Your task to perform on an android device: change the clock display to show seconds Image 0: 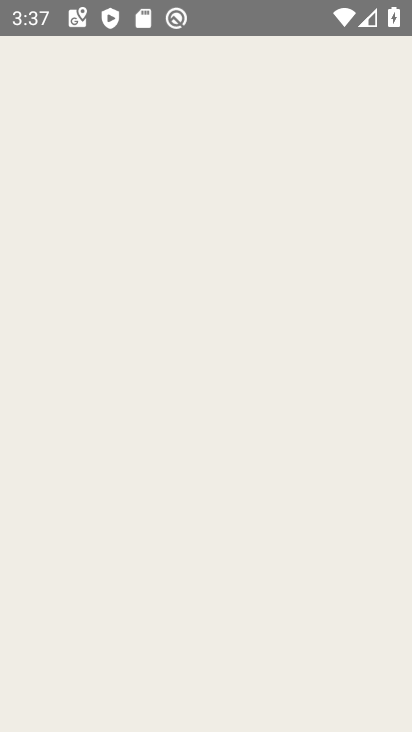
Step 0: press home button
Your task to perform on an android device: change the clock display to show seconds Image 1: 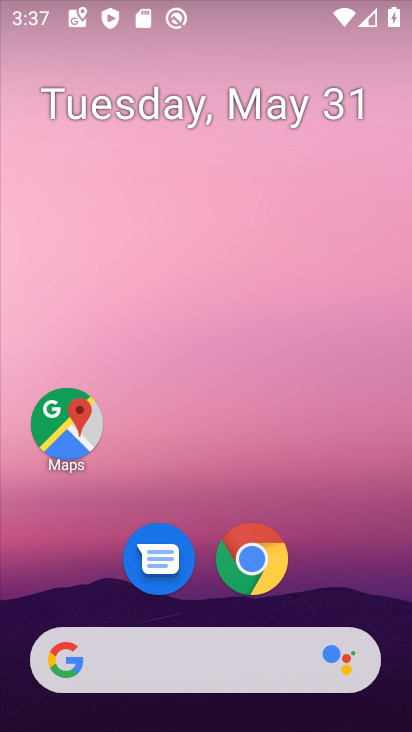
Step 1: drag from (238, 679) to (238, 552)
Your task to perform on an android device: change the clock display to show seconds Image 2: 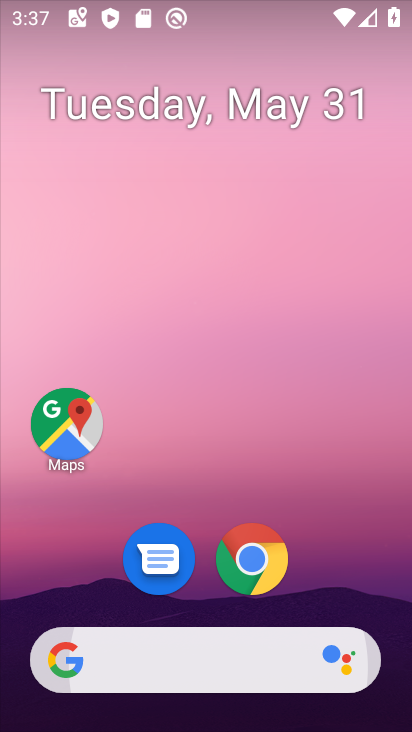
Step 2: click (232, 126)
Your task to perform on an android device: change the clock display to show seconds Image 3: 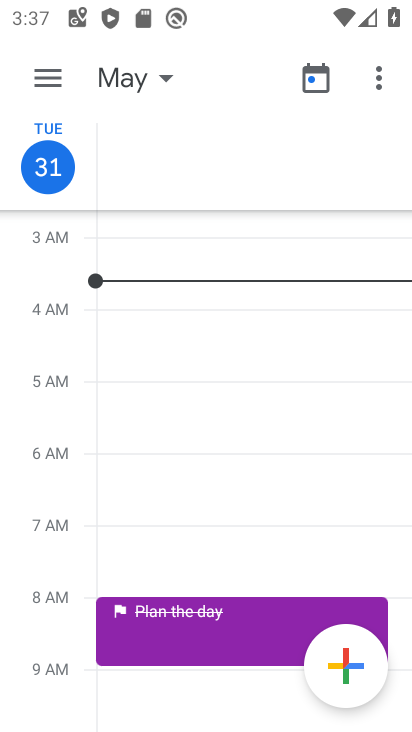
Step 3: press home button
Your task to perform on an android device: change the clock display to show seconds Image 4: 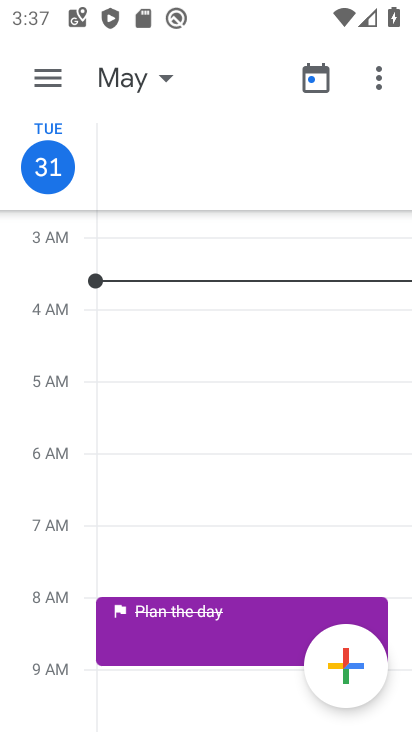
Step 4: press home button
Your task to perform on an android device: change the clock display to show seconds Image 5: 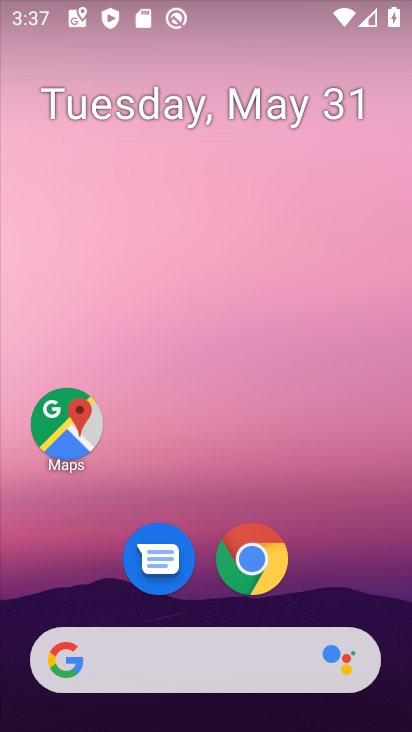
Step 5: drag from (226, 720) to (227, 137)
Your task to perform on an android device: change the clock display to show seconds Image 6: 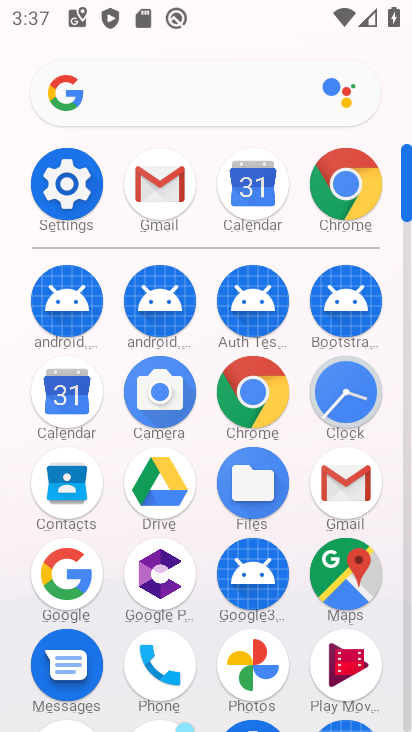
Step 6: click (338, 400)
Your task to perform on an android device: change the clock display to show seconds Image 7: 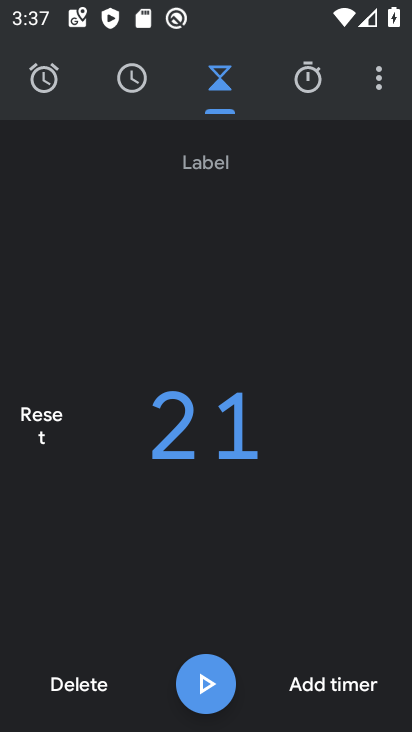
Step 7: click (382, 92)
Your task to perform on an android device: change the clock display to show seconds Image 8: 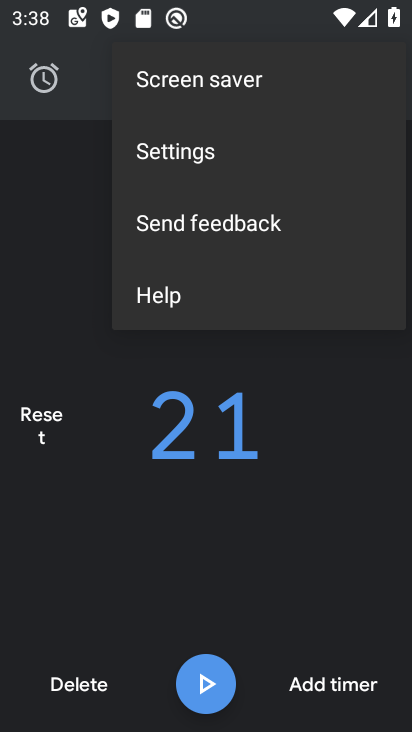
Step 8: click (186, 151)
Your task to perform on an android device: change the clock display to show seconds Image 9: 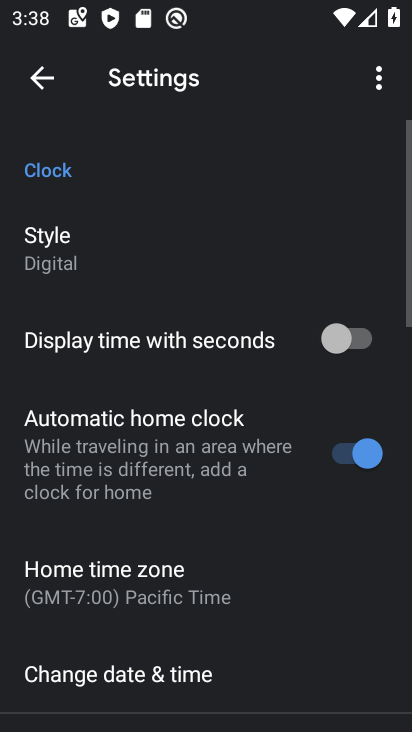
Step 9: click (356, 334)
Your task to perform on an android device: change the clock display to show seconds Image 10: 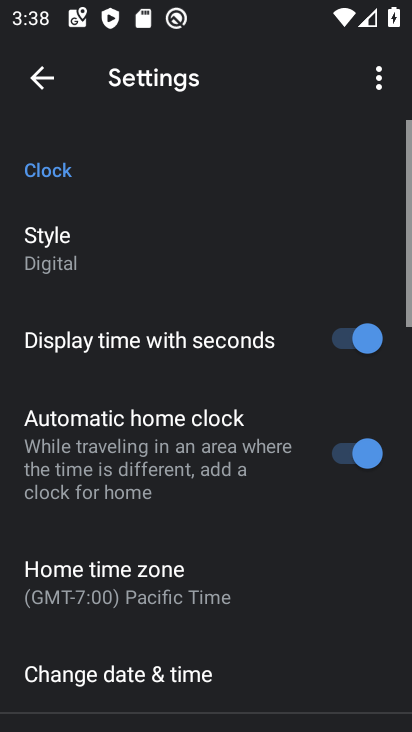
Step 10: task complete